Your task to perform on an android device: check android version Image 0: 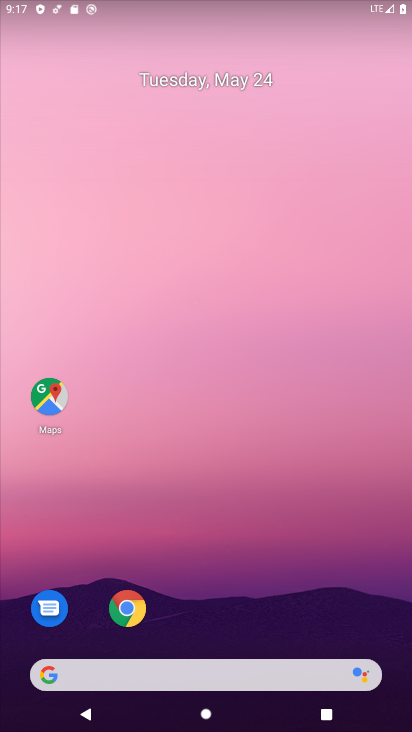
Step 0: drag from (221, 624) to (185, 0)
Your task to perform on an android device: check android version Image 1: 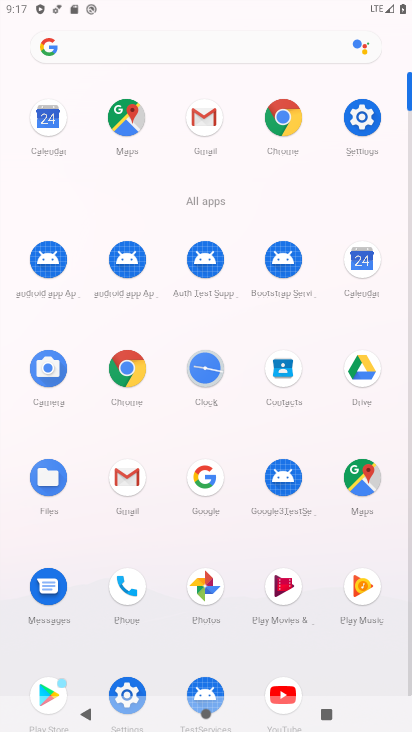
Step 1: click (368, 133)
Your task to perform on an android device: check android version Image 2: 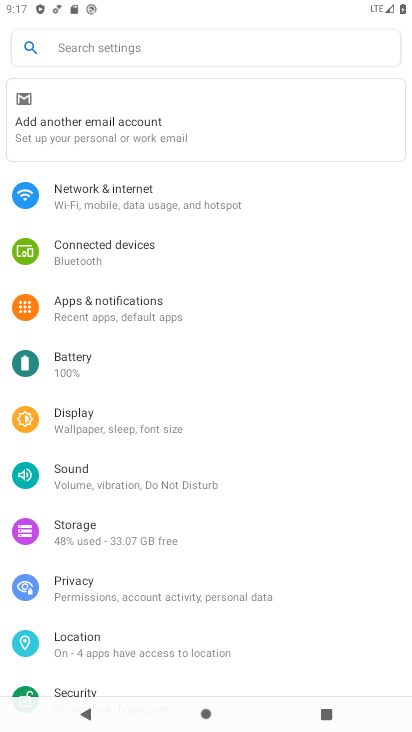
Step 2: drag from (144, 642) to (154, 17)
Your task to perform on an android device: check android version Image 3: 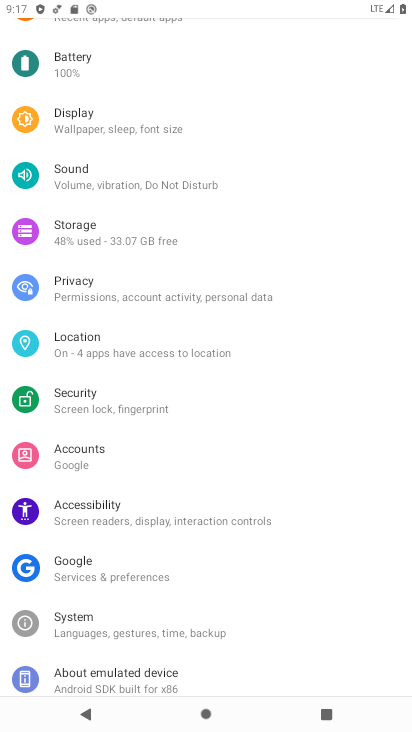
Step 3: click (115, 679)
Your task to perform on an android device: check android version Image 4: 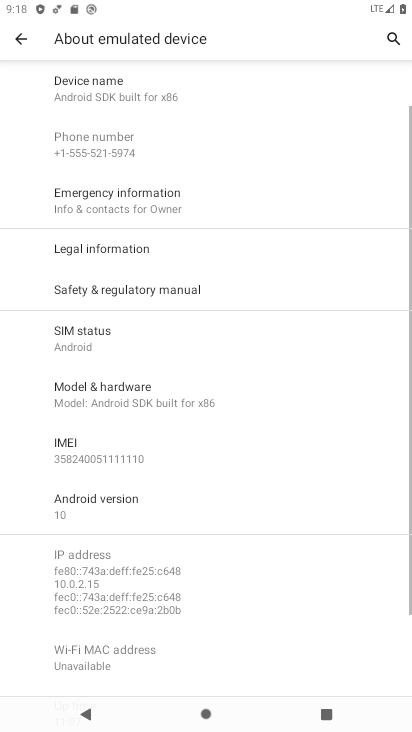
Step 4: drag from (134, 499) to (142, 456)
Your task to perform on an android device: check android version Image 5: 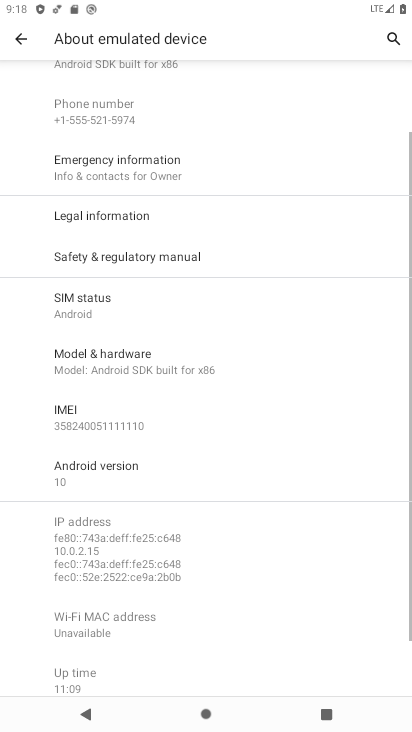
Step 5: click (123, 478)
Your task to perform on an android device: check android version Image 6: 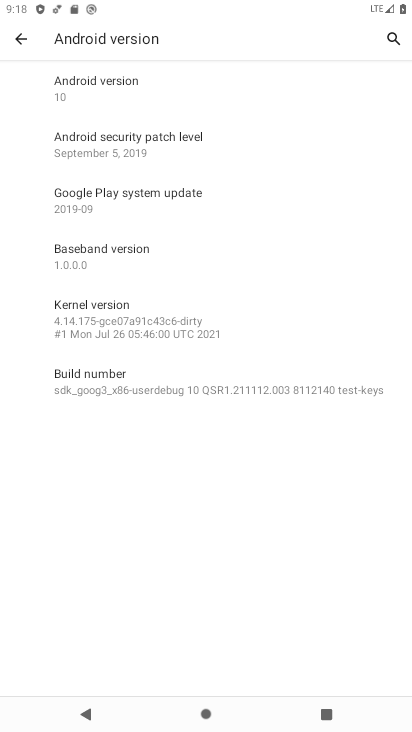
Step 6: task complete